Your task to perform on an android device: turn off improve location accuracy Image 0: 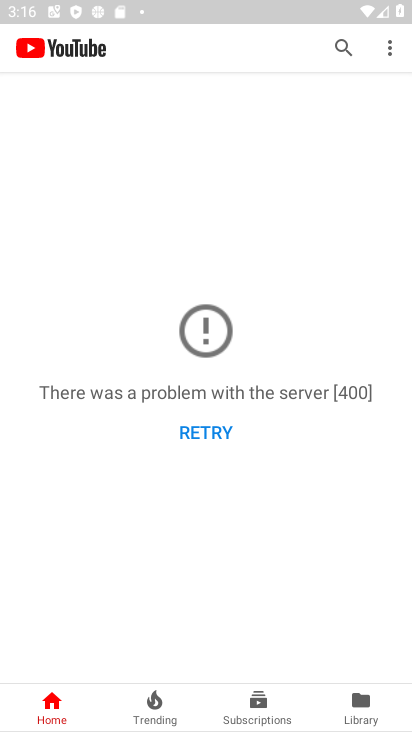
Step 0: press home button
Your task to perform on an android device: turn off improve location accuracy Image 1: 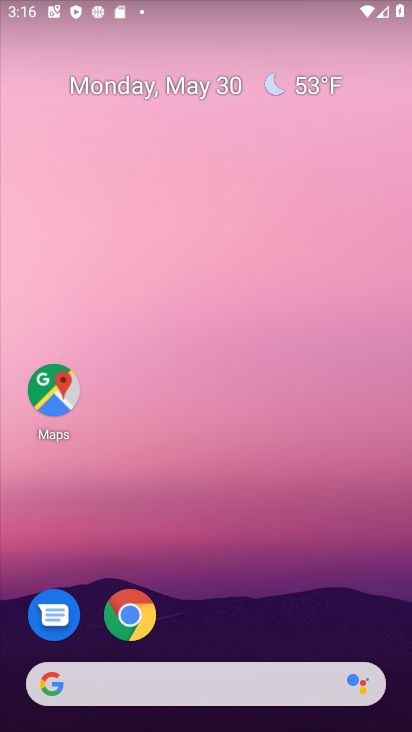
Step 1: drag from (293, 599) to (244, 228)
Your task to perform on an android device: turn off improve location accuracy Image 2: 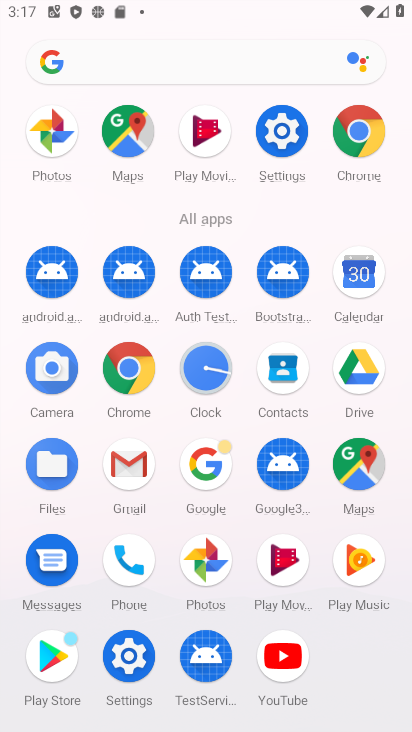
Step 2: click (123, 668)
Your task to perform on an android device: turn off improve location accuracy Image 3: 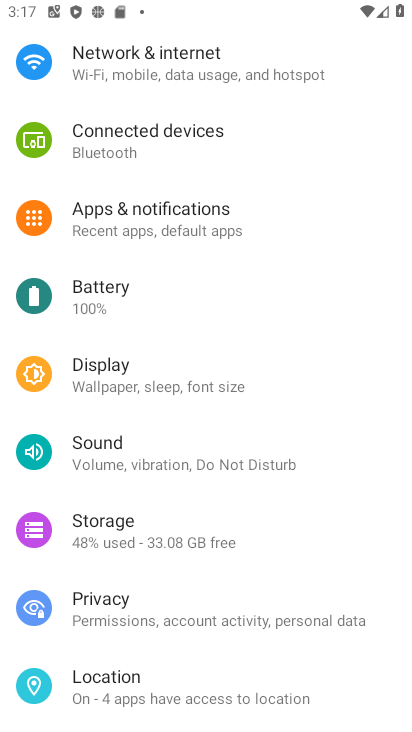
Step 3: drag from (261, 559) to (251, 447)
Your task to perform on an android device: turn off improve location accuracy Image 4: 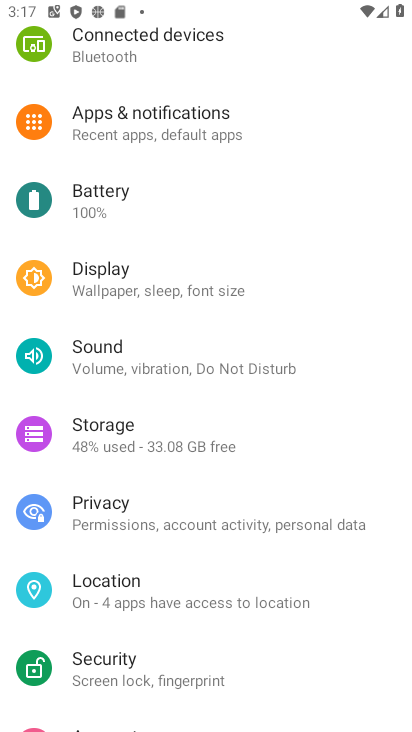
Step 4: click (162, 603)
Your task to perform on an android device: turn off improve location accuracy Image 5: 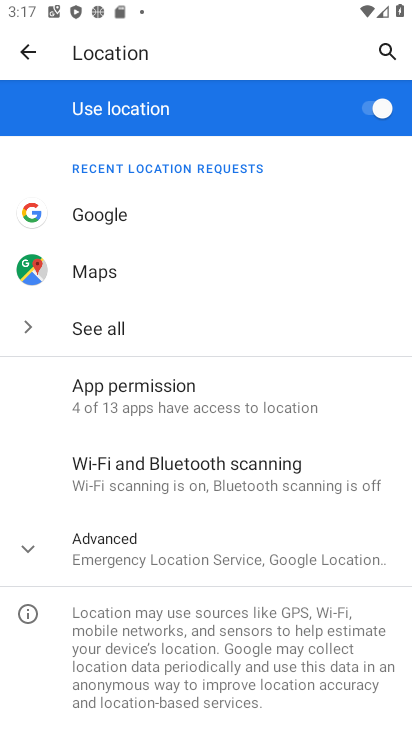
Step 5: click (171, 550)
Your task to perform on an android device: turn off improve location accuracy Image 6: 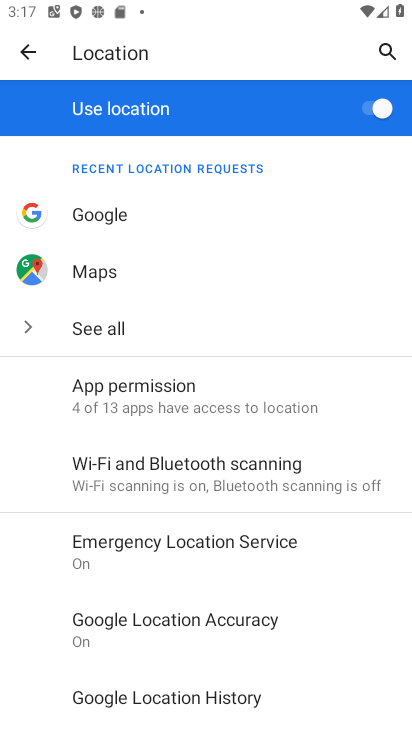
Step 6: click (223, 617)
Your task to perform on an android device: turn off improve location accuracy Image 7: 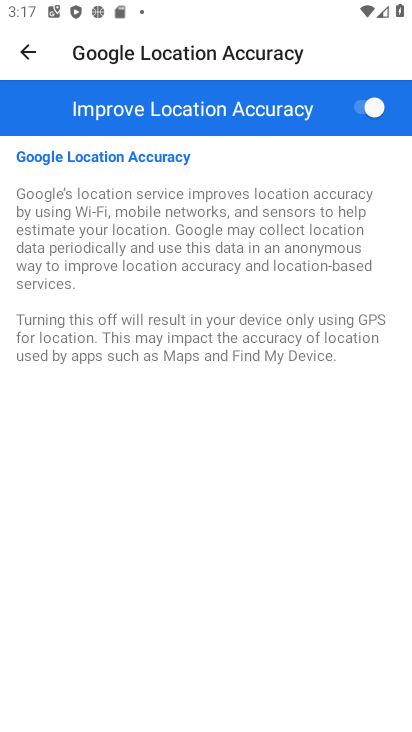
Step 7: click (365, 104)
Your task to perform on an android device: turn off improve location accuracy Image 8: 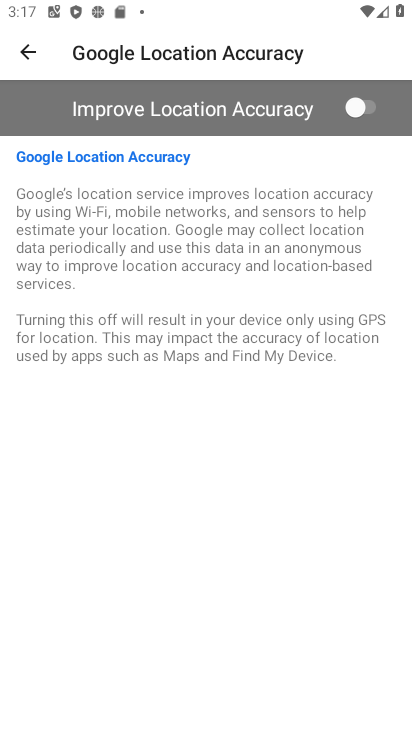
Step 8: task complete